Your task to perform on an android device: see sites visited before in the chrome app Image 0: 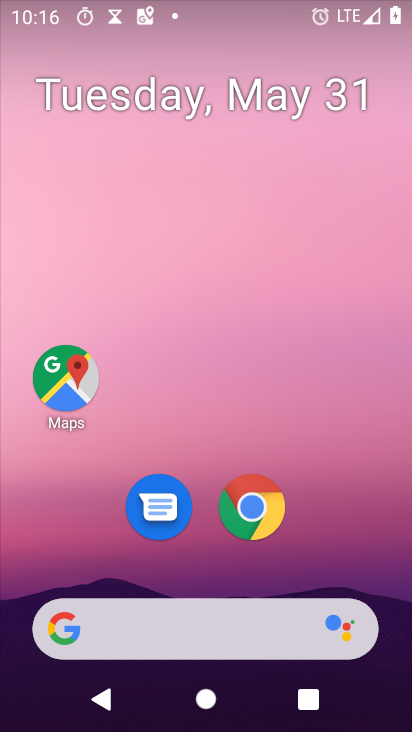
Step 0: click (269, 497)
Your task to perform on an android device: see sites visited before in the chrome app Image 1: 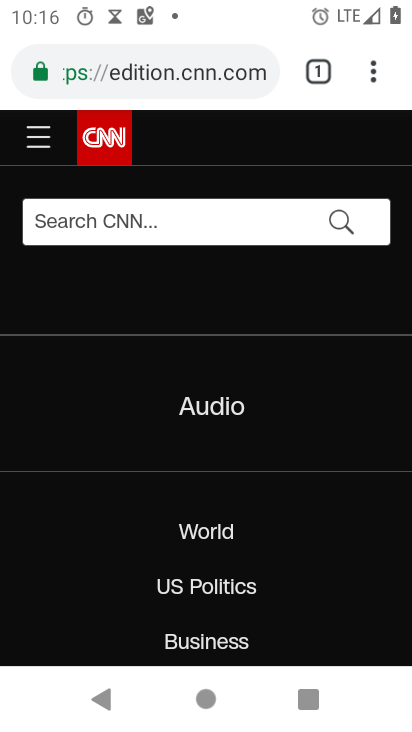
Step 1: click (380, 69)
Your task to perform on an android device: see sites visited before in the chrome app Image 2: 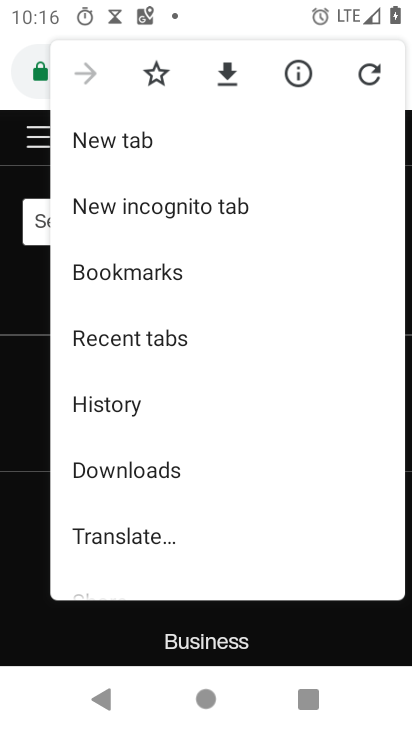
Step 2: click (188, 390)
Your task to perform on an android device: see sites visited before in the chrome app Image 3: 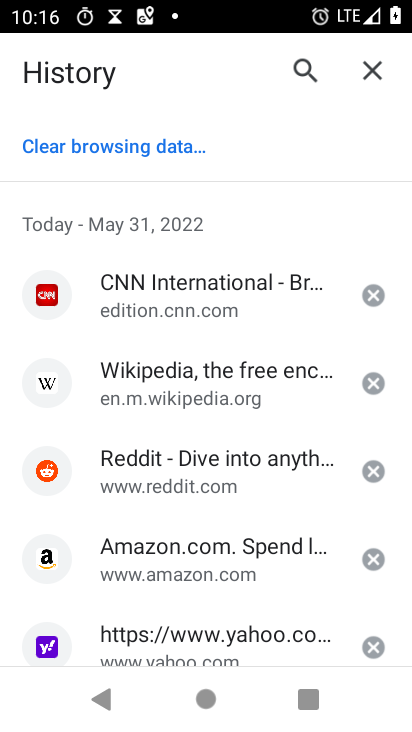
Step 3: task complete